Your task to perform on an android device: check android version Image 0: 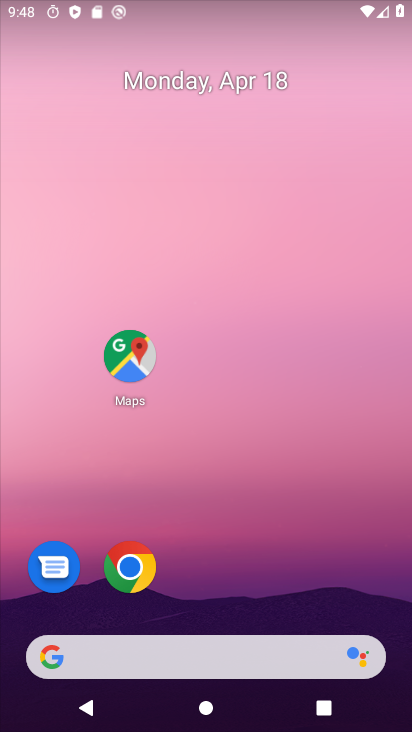
Step 0: drag from (296, 679) to (257, 186)
Your task to perform on an android device: check android version Image 1: 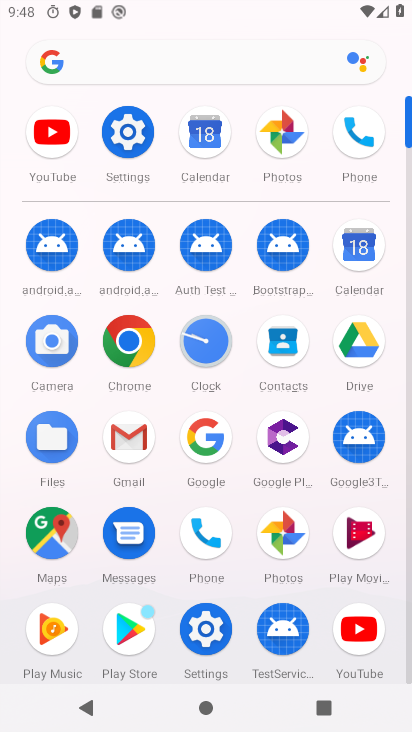
Step 1: click (204, 632)
Your task to perform on an android device: check android version Image 2: 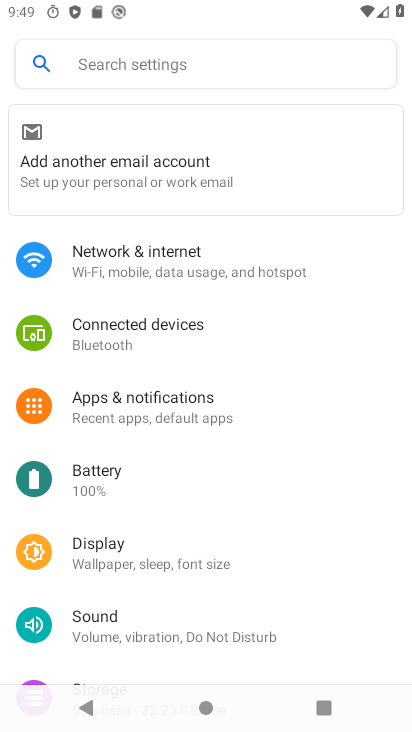
Step 2: click (159, 54)
Your task to perform on an android device: check android version Image 3: 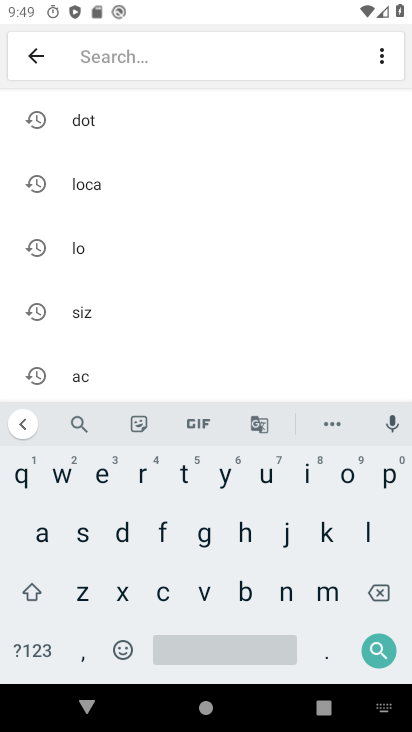
Step 3: click (38, 525)
Your task to perform on an android device: check android version Image 4: 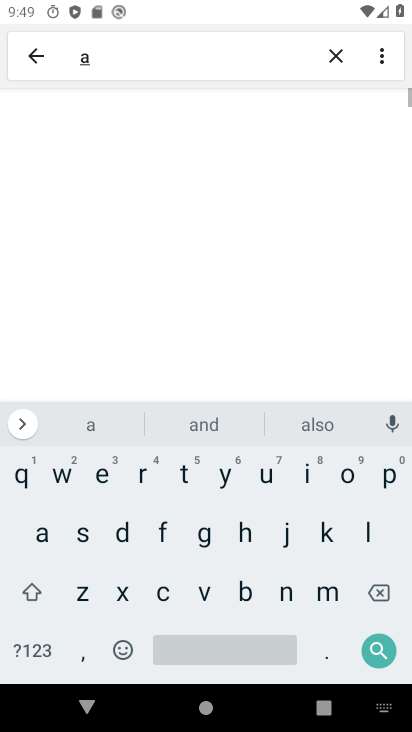
Step 4: click (284, 597)
Your task to perform on an android device: check android version Image 5: 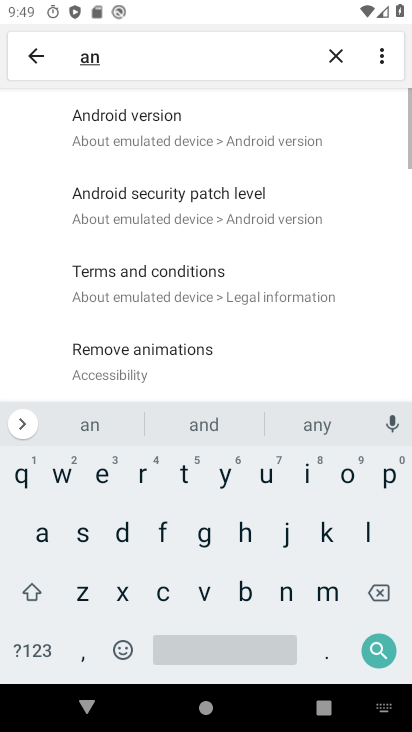
Step 5: click (128, 536)
Your task to perform on an android device: check android version Image 6: 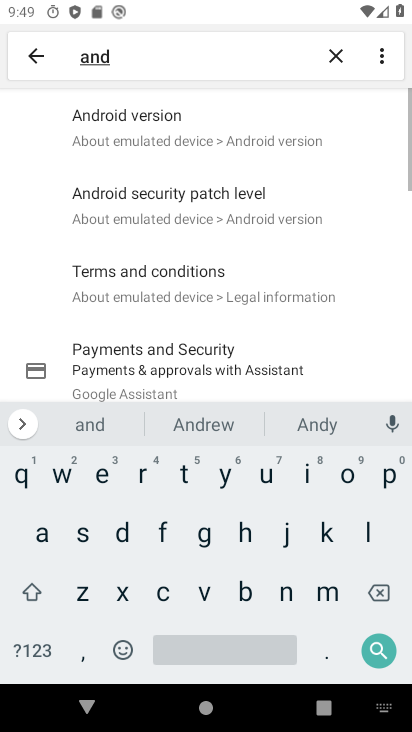
Step 6: click (168, 122)
Your task to perform on an android device: check android version Image 7: 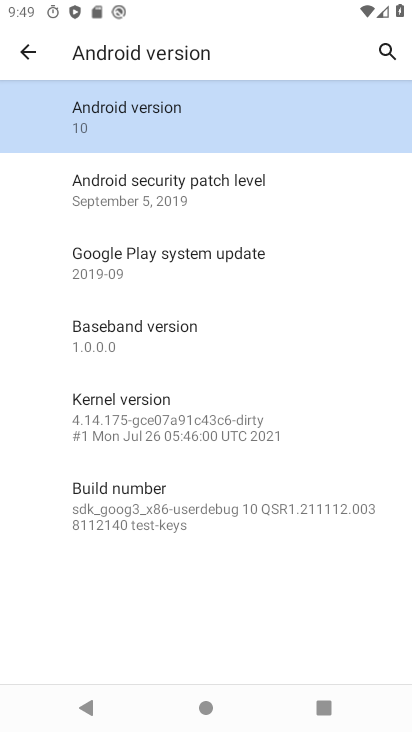
Step 7: click (158, 124)
Your task to perform on an android device: check android version Image 8: 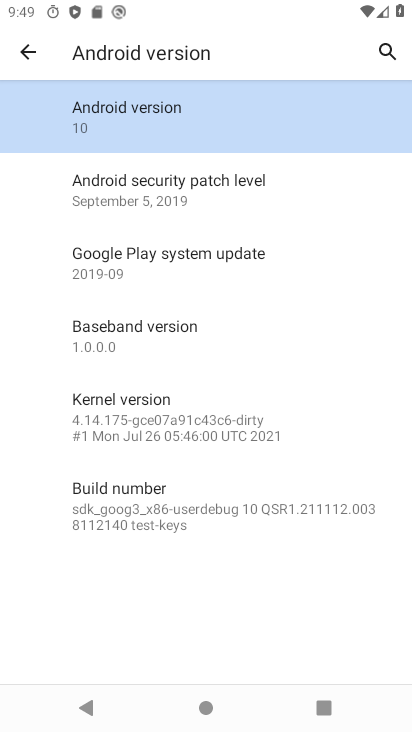
Step 8: click (153, 128)
Your task to perform on an android device: check android version Image 9: 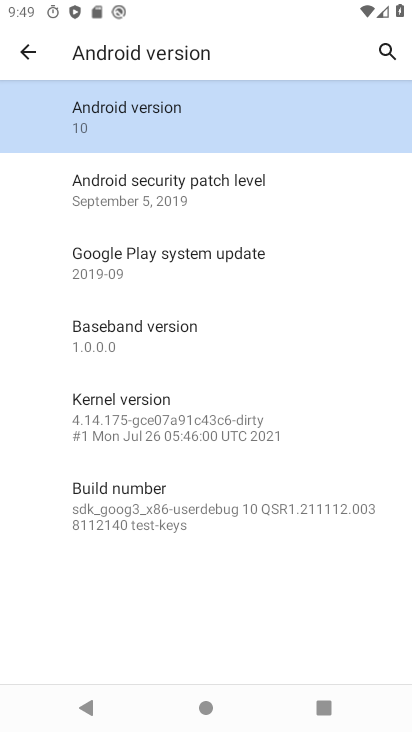
Step 9: task complete